Your task to perform on an android device: Search for "energizer triple a" on costco, select the first entry, and add it to the cart. Image 0: 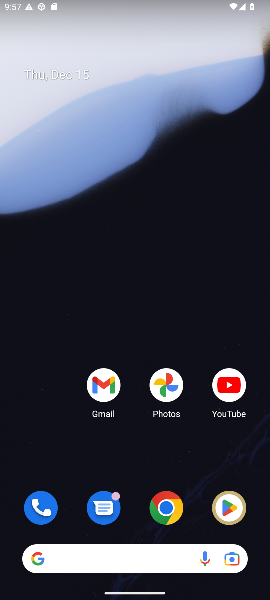
Step 0: drag from (127, 558) to (213, 200)
Your task to perform on an android device: Search for "energizer triple a" on costco, select the first entry, and add it to the cart. Image 1: 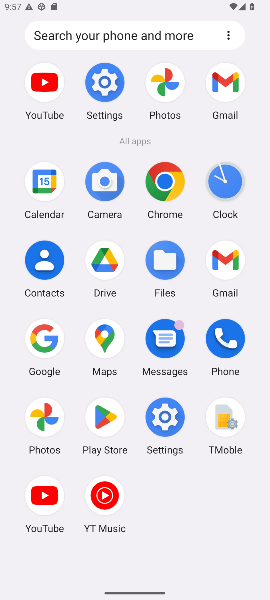
Step 1: click (49, 336)
Your task to perform on an android device: Search for "energizer triple a" on costco, select the first entry, and add it to the cart. Image 2: 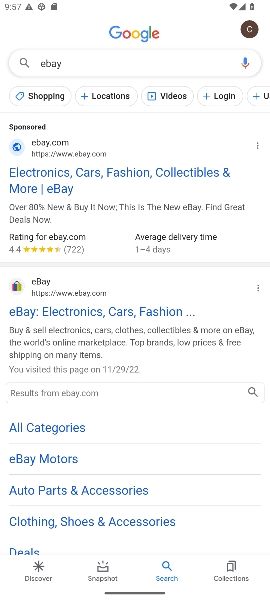
Step 2: click (71, 65)
Your task to perform on an android device: Search for "energizer triple a" on costco, select the first entry, and add it to the cart. Image 3: 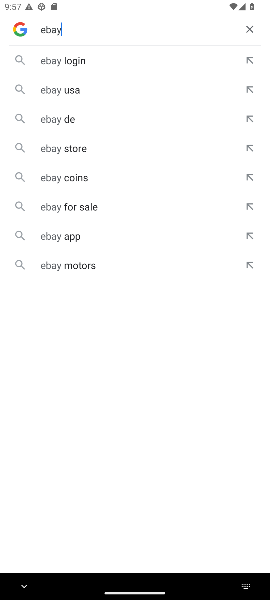
Step 3: click (247, 33)
Your task to perform on an android device: Search for "energizer triple a" on costco, select the first entry, and add it to the cart. Image 4: 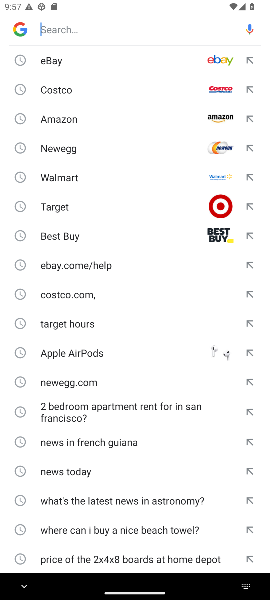
Step 4: click (65, 91)
Your task to perform on an android device: Search for "energizer triple a" on costco, select the first entry, and add it to the cart. Image 5: 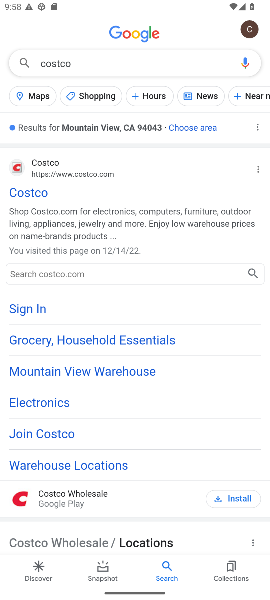
Step 5: click (39, 195)
Your task to perform on an android device: Search for "energizer triple a" on costco, select the first entry, and add it to the cart. Image 6: 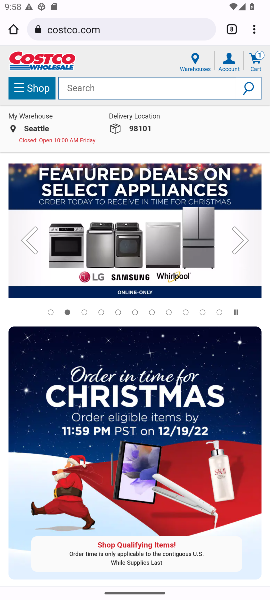
Step 6: click (97, 92)
Your task to perform on an android device: Search for "energizer triple a" on costco, select the first entry, and add it to the cart. Image 7: 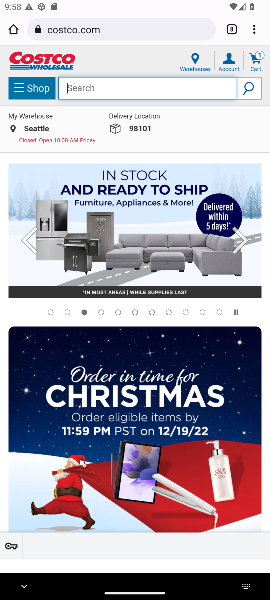
Step 7: type "energizer triple a"
Your task to perform on an android device: Search for "energizer triple a" on costco, select the first entry, and add it to the cart. Image 8: 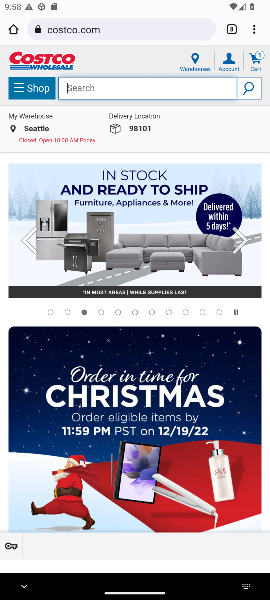
Step 8: click (253, 87)
Your task to perform on an android device: Search for "energizer triple a" on costco, select the first entry, and add it to the cart. Image 9: 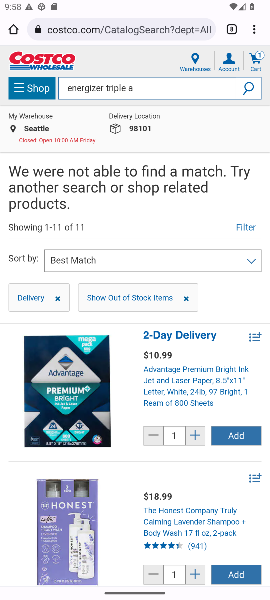
Step 9: drag from (125, 484) to (155, 215)
Your task to perform on an android device: Search for "energizer triple a" on costco, select the first entry, and add it to the cart. Image 10: 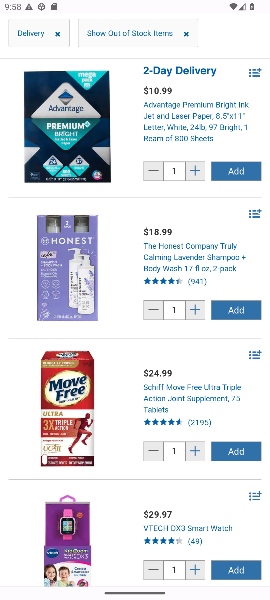
Step 10: click (246, 173)
Your task to perform on an android device: Search for "energizer triple a" on costco, select the first entry, and add it to the cart. Image 11: 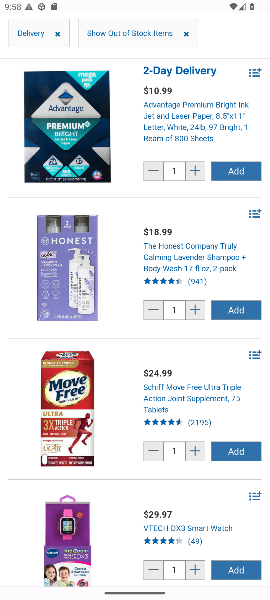
Step 11: click (239, 172)
Your task to perform on an android device: Search for "energizer triple a" on costco, select the first entry, and add it to the cart. Image 12: 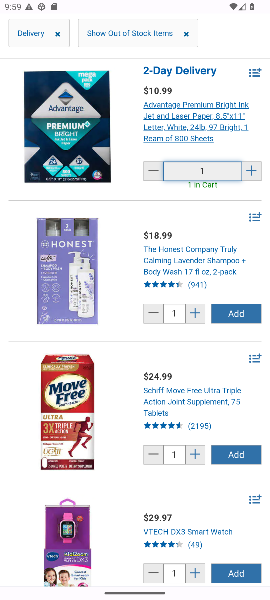
Step 12: task complete